Your task to perform on an android device: Open Maps and search for coffee Image 0: 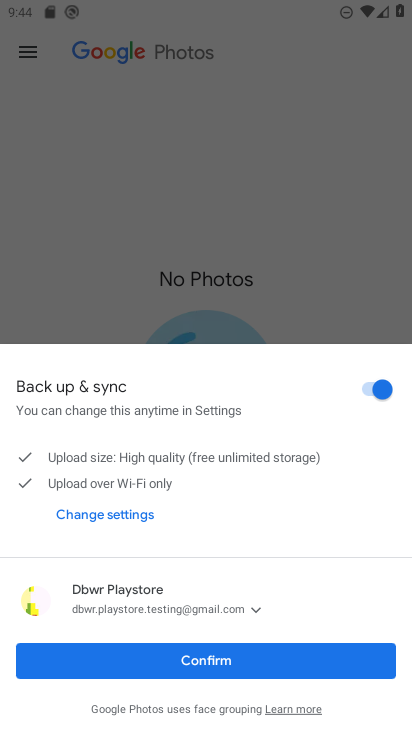
Step 0: press home button
Your task to perform on an android device: Open Maps and search for coffee Image 1: 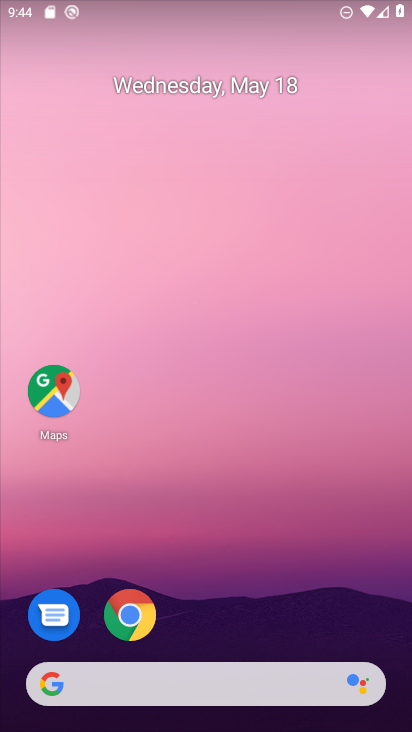
Step 1: click (59, 396)
Your task to perform on an android device: Open Maps and search for coffee Image 2: 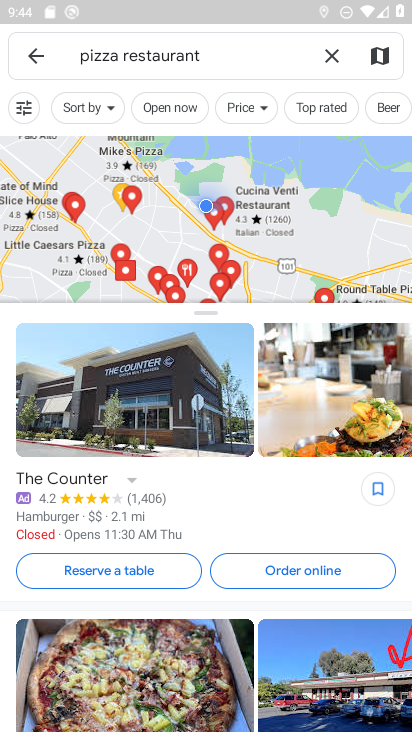
Step 2: click (248, 65)
Your task to perform on an android device: Open Maps and search for coffee Image 3: 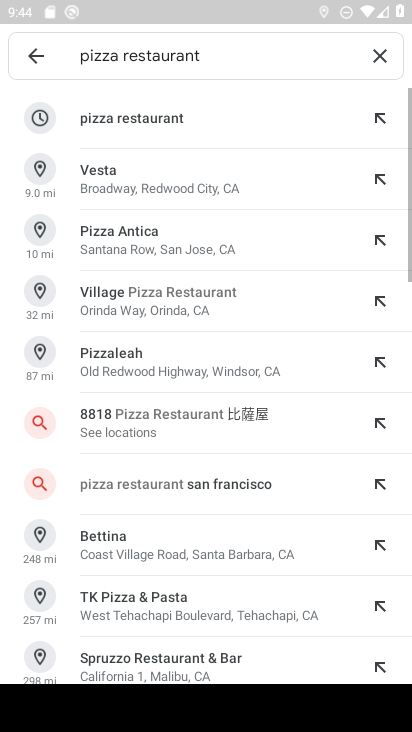
Step 3: click (363, 60)
Your task to perform on an android device: Open Maps and search for coffee Image 4: 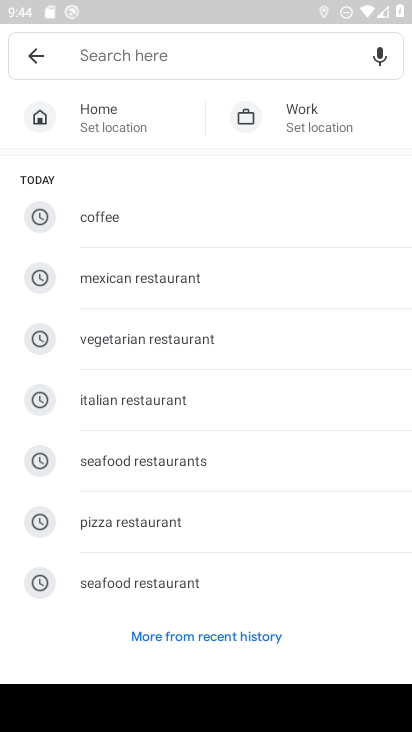
Step 4: click (151, 216)
Your task to perform on an android device: Open Maps and search for coffee Image 5: 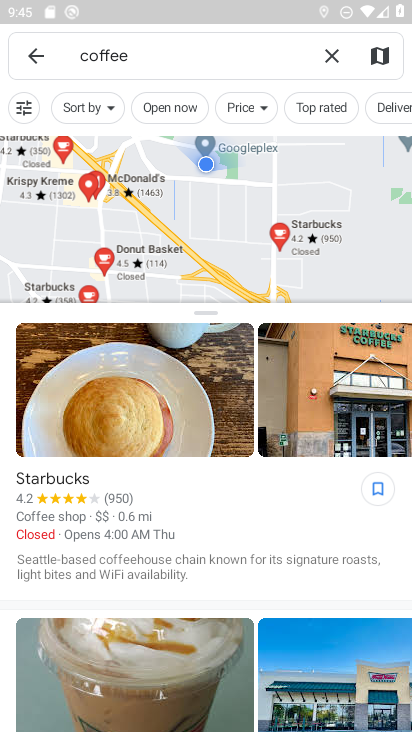
Step 5: task complete